Your task to perform on an android device: Go to Google Image 0: 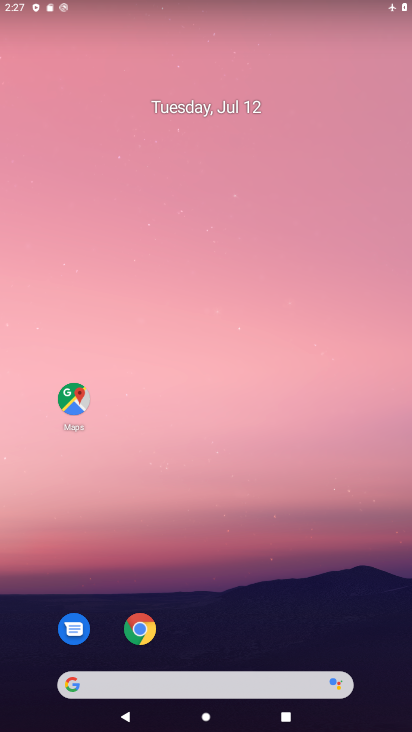
Step 0: drag from (222, 670) to (295, 105)
Your task to perform on an android device: Go to Google Image 1: 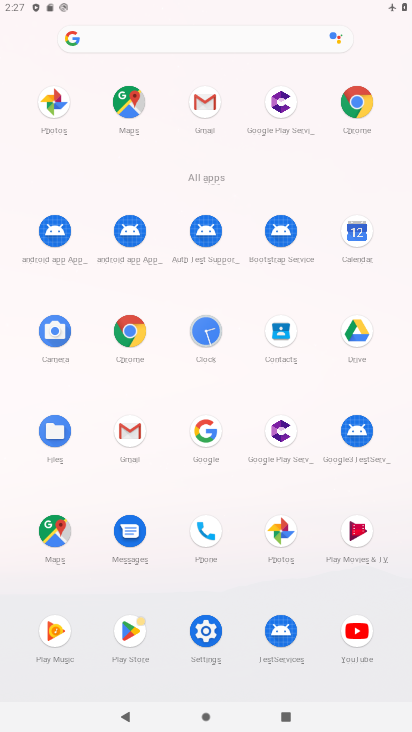
Step 1: click (138, 333)
Your task to perform on an android device: Go to Google Image 2: 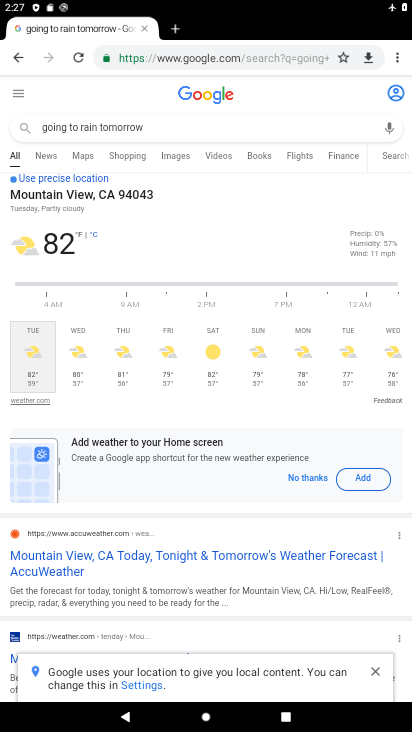
Step 2: task complete